Your task to perform on an android device: Open battery settings Image 0: 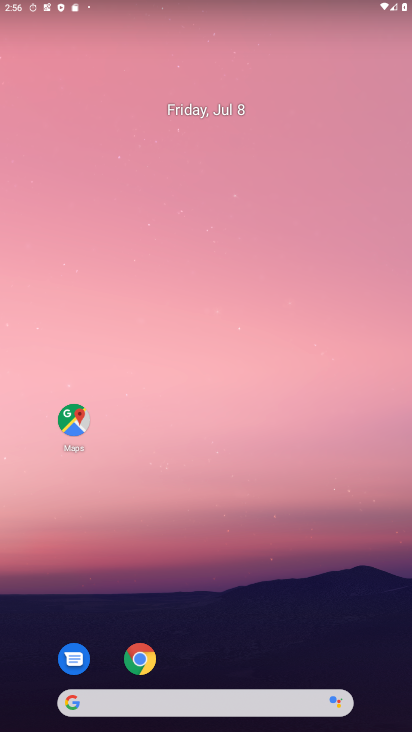
Step 0: drag from (243, 613) to (233, 203)
Your task to perform on an android device: Open battery settings Image 1: 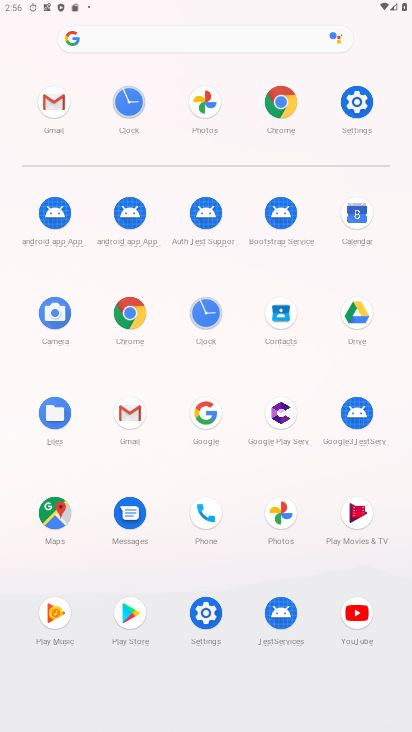
Step 1: click (359, 94)
Your task to perform on an android device: Open battery settings Image 2: 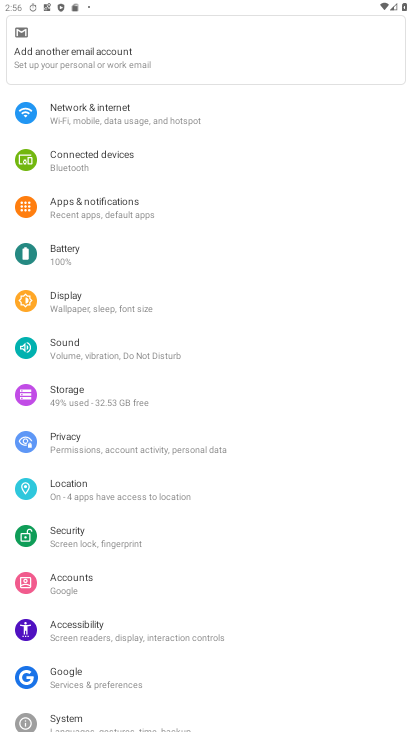
Step 2: click (86, 253)
Your task to perform on an android device: Open battery settings Image 3: 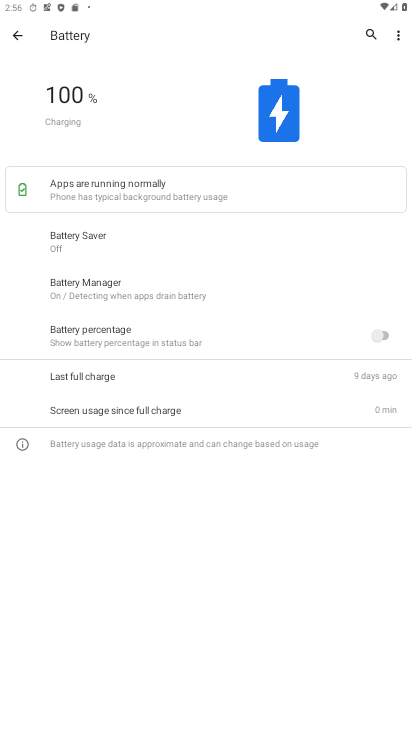
Step 3: task complete